Your task to perform on an android device: empty trash in the gmail app Image 0: 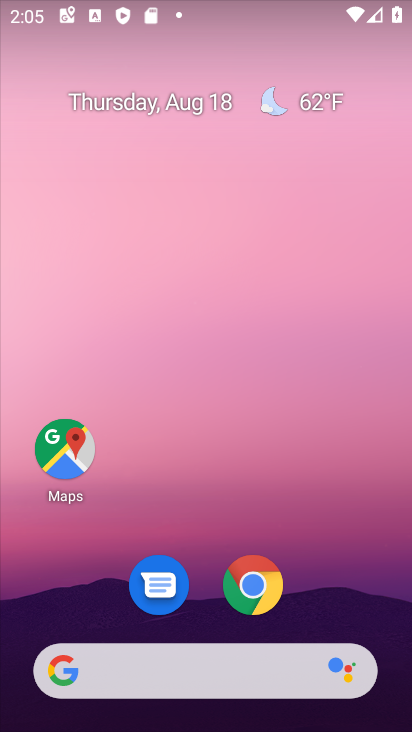
Step 0: drag from (304, 578) to (322, 16)
Your task to perform on an android device: empty trash in the gmail app Image 1: 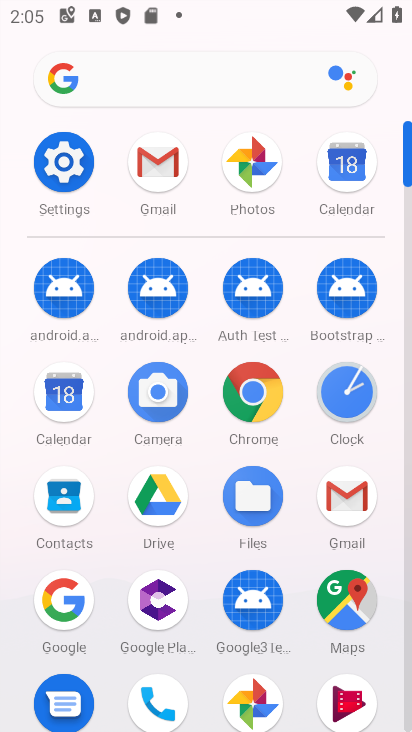
Step 1: click (157, 159)
Your task to perform on an android device: empty trash in the gmail app Image 2: 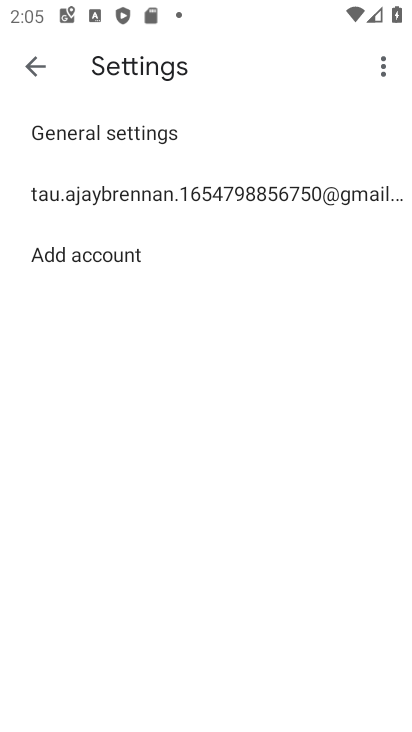
Step 2: click (30, 61)
Your task to perform on an android device: empty trash in the gmail app Image 3: 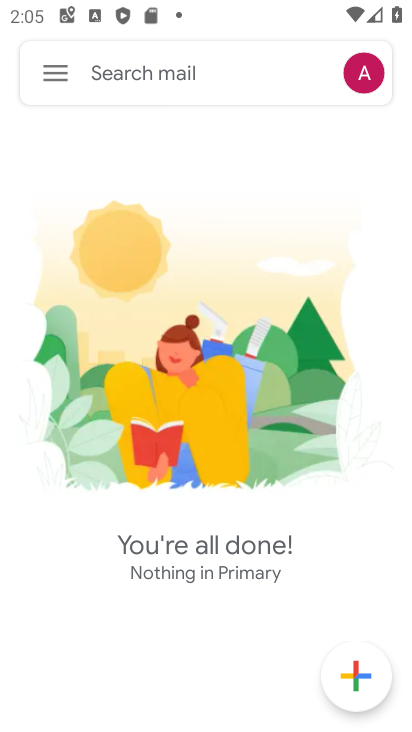
Step 3: click (56, 76)
Your task to perform on an android device: empty trash in the gmail app Image 4: 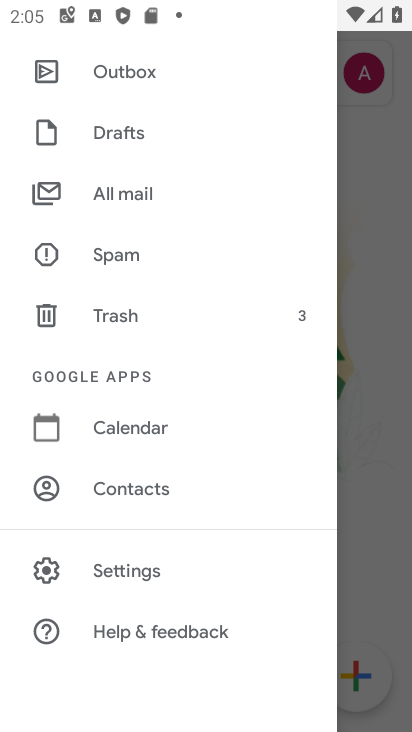
Step 4: click (107, 301)
Your task to perform on an android device: empty trash in the gmail app Image 5: 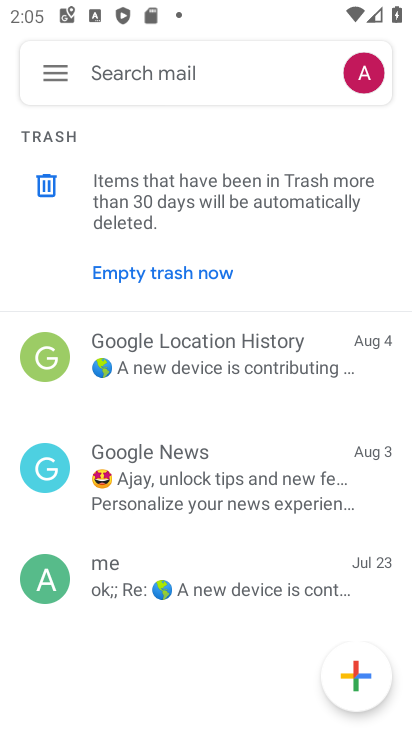
Step 5: click (139, 273)
Your task to perform on an android device: empty trash in the gmail app Image 6: 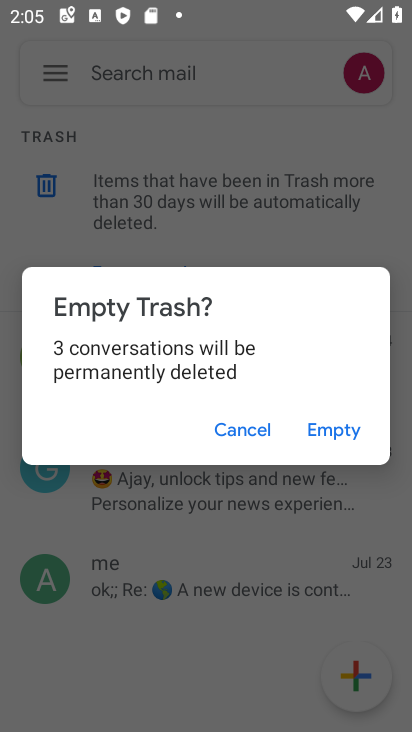
Step 6: click (348, 426)
Your task to perform on an android device: empty trash in the gmail app Image 7: 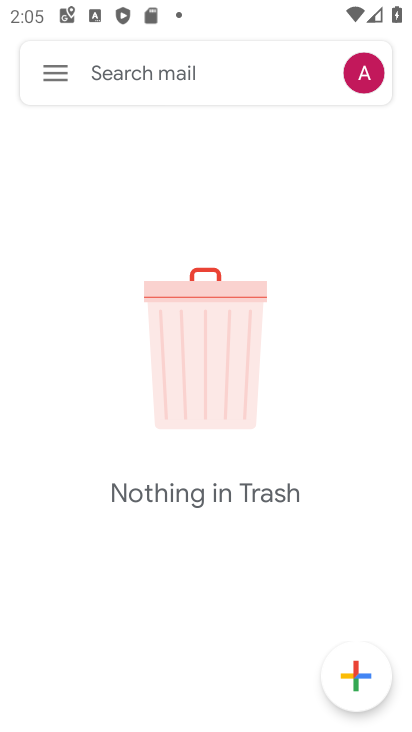
Step 7: task complete